Your task to perform on an android device: move an email to a new category in the gmail app Image 0: 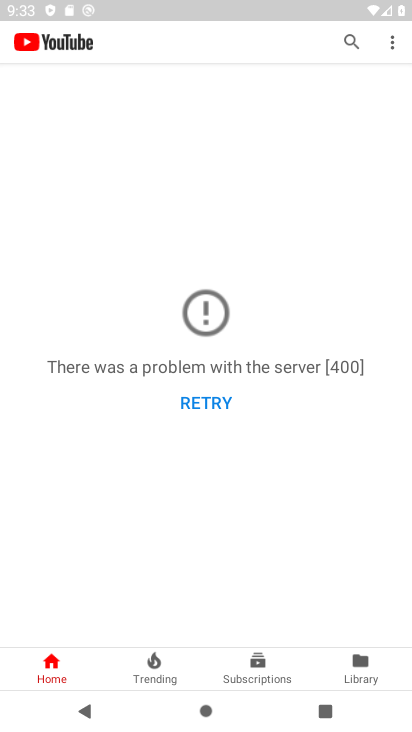
Step 0: press back button
Your task to perform on an android device: move an email to a new category in the gmail app Image 1: 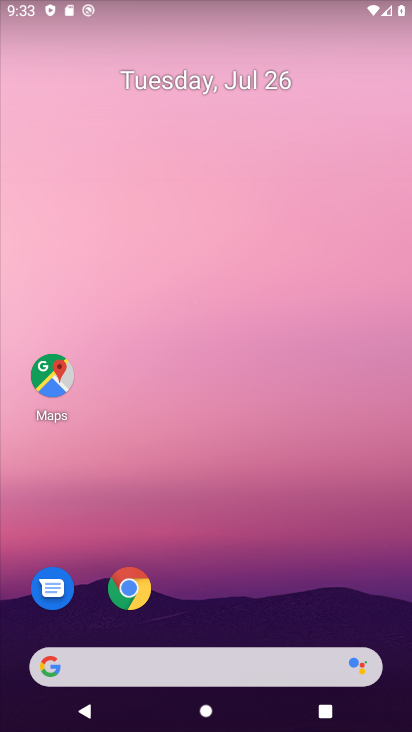
Step 1: drag from (253, 594) to (327, 21)
Your task to perform on an android device: move an email to a new category in the gmail app Image 2: 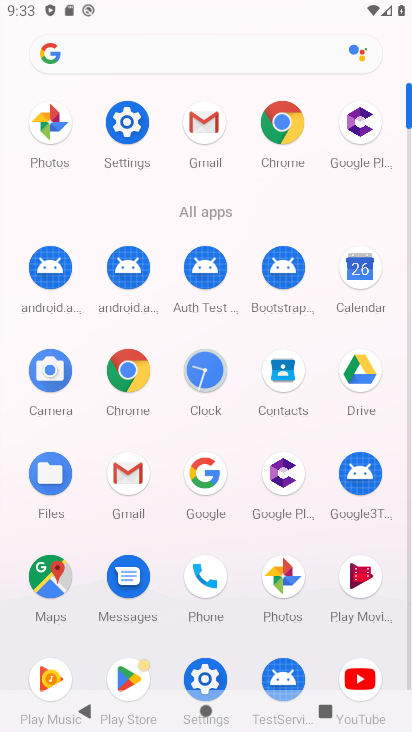
Step 2: click (200, 120)
Your task to perform on an android device: move an email to a new category in the gmail app Image 3: 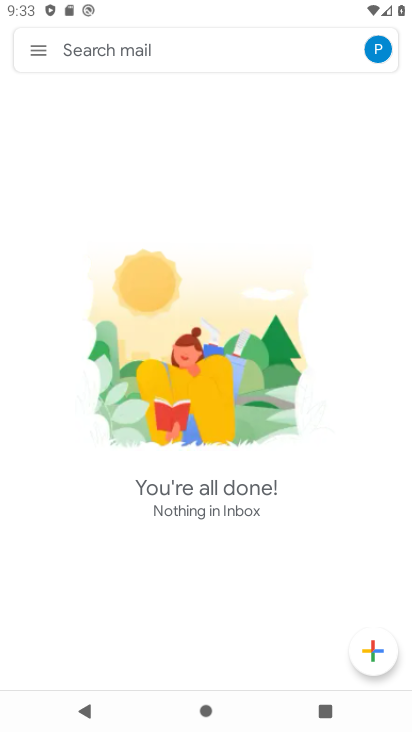
Step 3: click (45, 59)
Your task to perform on an android device: move an email to a new category in the gmail app Image 4: 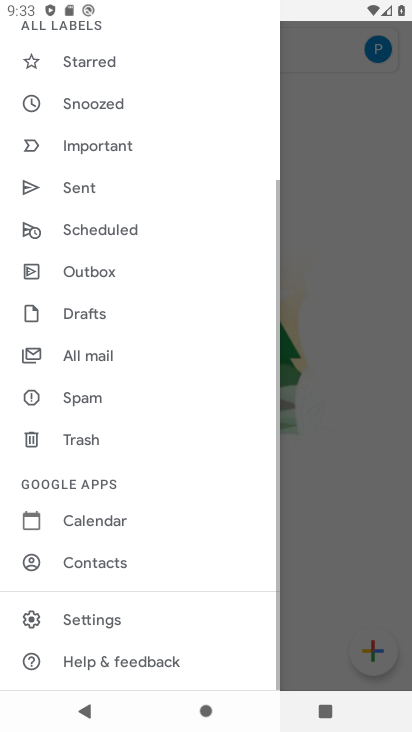
Step 4: click (131, 352)
Your task to perform on an android device: move an email to a new category in the gmail app Image 5: 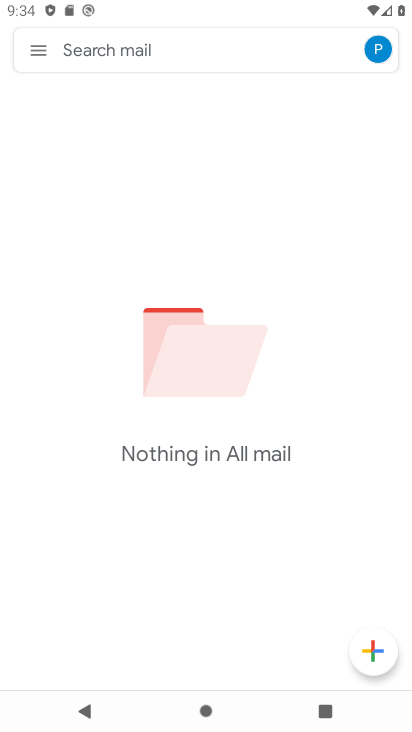
Step 5: task complete